Your task to perform on an android device: Open calendar and show me the third week of next month Image 0: 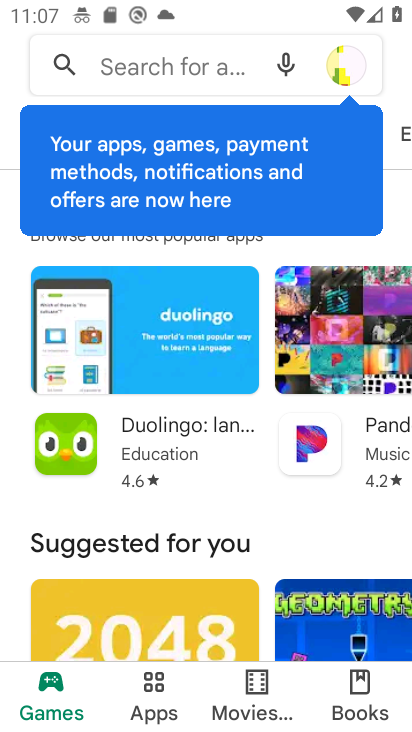
Step 0: press home button
Your task to perform on an android device: Open calendar and show me the third week of next month Image 1: 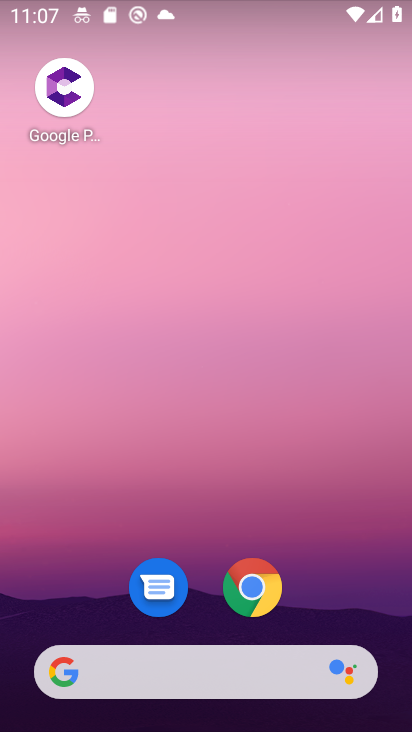
Step 1: drag from (239, 661) to (239, 83)
Your task to perform on an android device: Open calendar and show me the third week of next month Image 2: 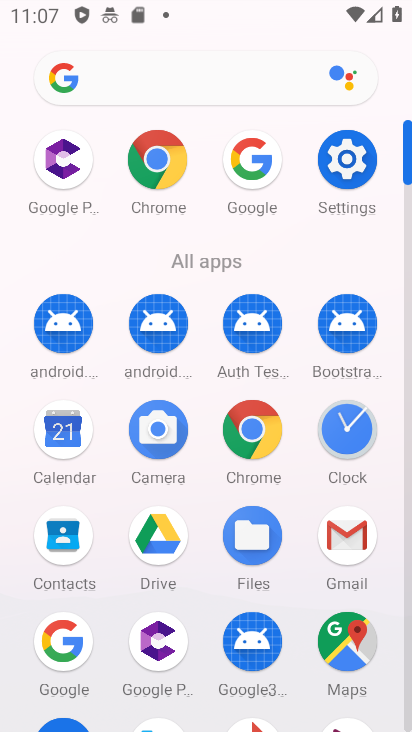
Step 2: click (58, 434)
Your task to perform on an android device: Open calendar and show me the third week of next month Image 3: 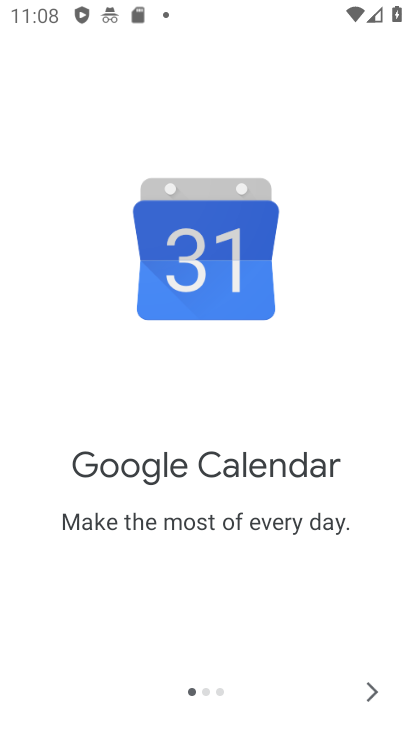
Step 3: click (365, 682)
Your task to perform on an android device: Open calendar and show me the third week of next month Image 4: 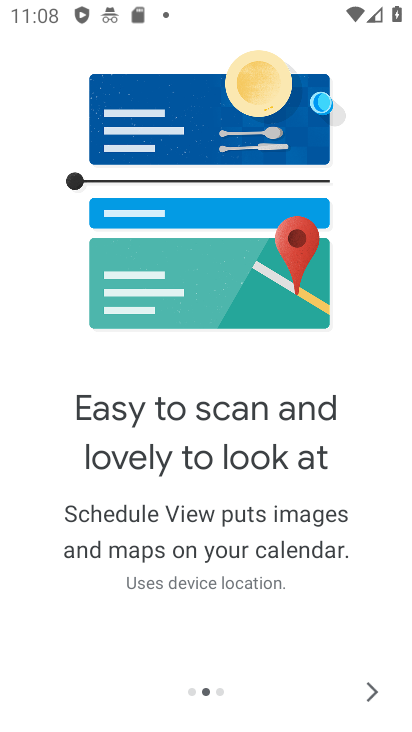
Step 4: click (370, 688)
Your task to perform on an android device: Open calendar and show me the third week of next month Image 5: 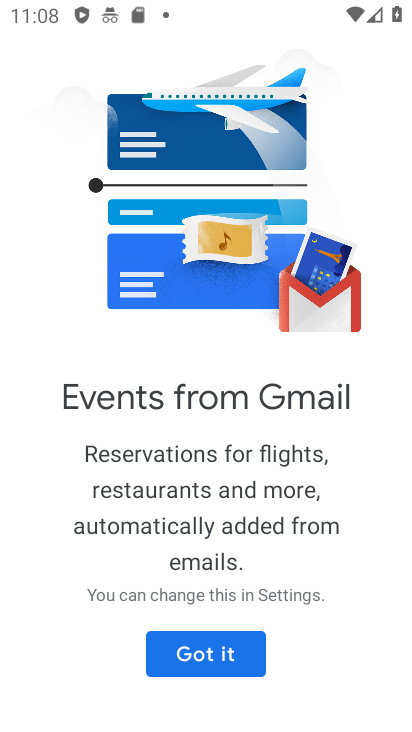
Step 5: click (210, 649)
Your task to perform on an android device: Open calendar and show me the third week of next month Image 6: 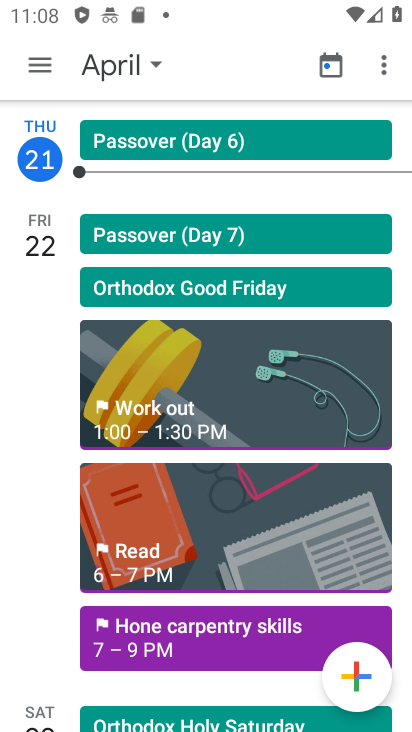
Step 6: click (110, 68)
Your task to perform on an android device: Open calendar and show me the third week of next month Image 7: 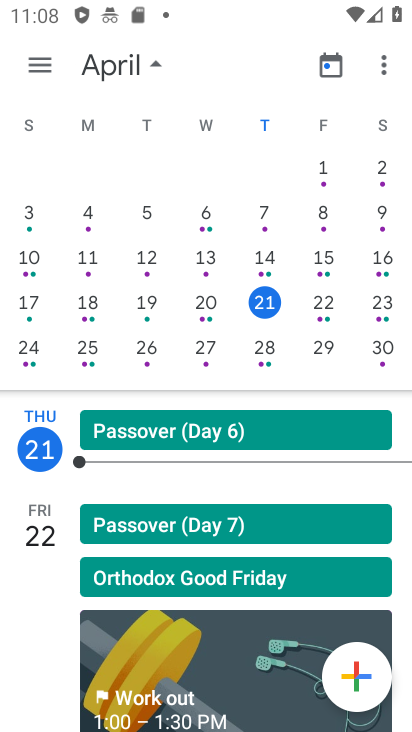
Step 7: click (3, 278)
Your task to perform on an android device: Open calendar and show me the third week of next month Image 8: 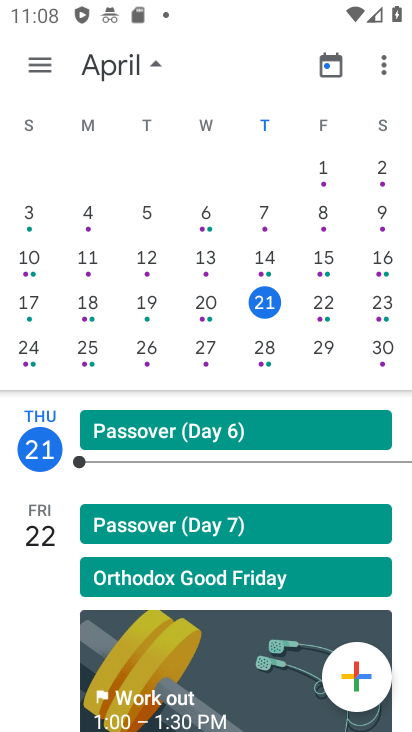
Step 8: drag from (364, 286) to (21, 229)
Your task to perform on an android device: Open calendar and show me the third week of next month Image 9: 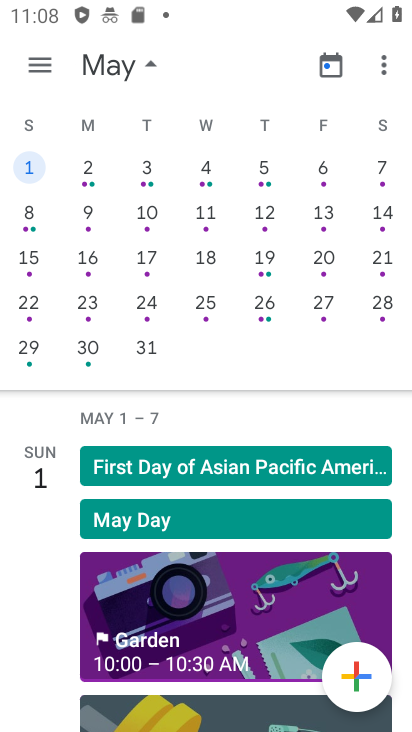
Step 9: click (87, 259)
Your task to perform on an android device: Open calendar and show me the third week of next month Image 10: 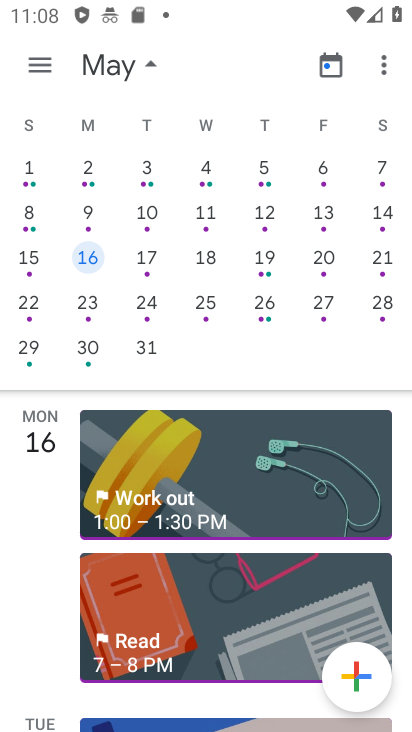
Step 10: task complete